Your task to perform on an android device: Open wifi settings Image 0: 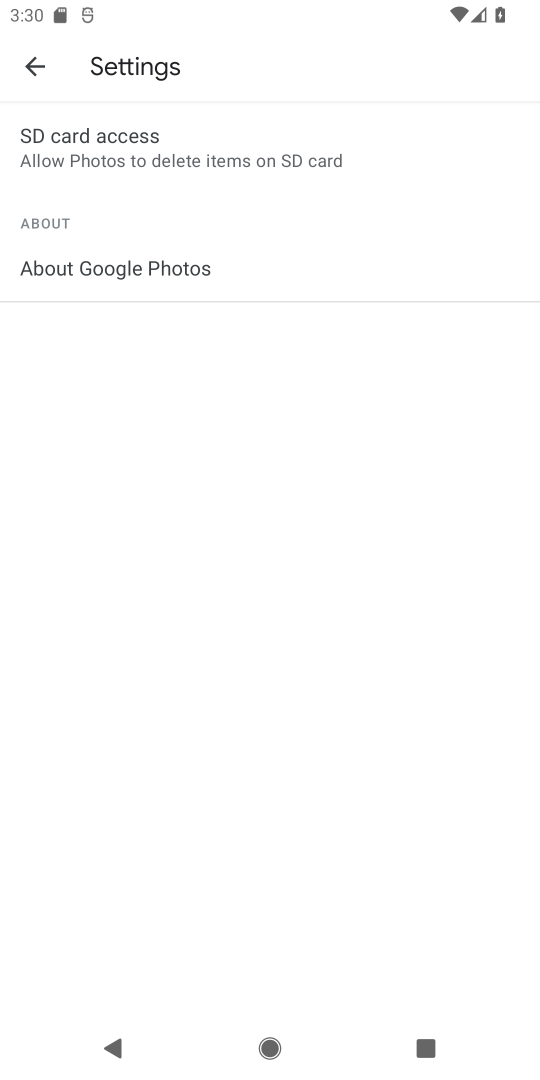
Step 0: press home button
Your task to perform on an android device: Open wifi settings Image 1: 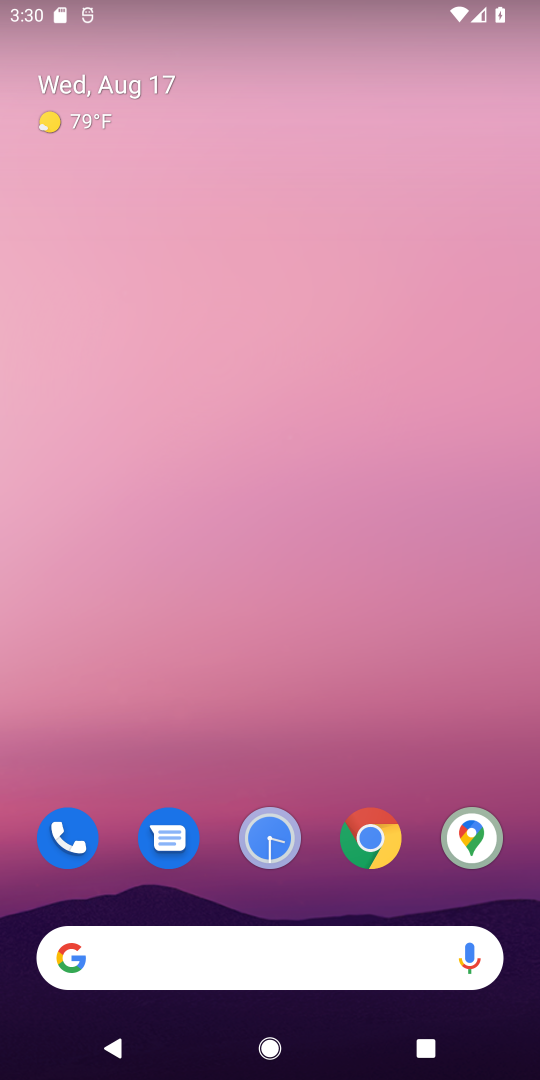
Step 1: drag from (154, 940) to (89, 310)
Your task to perform on an android device: Open wifi settings Image 2: 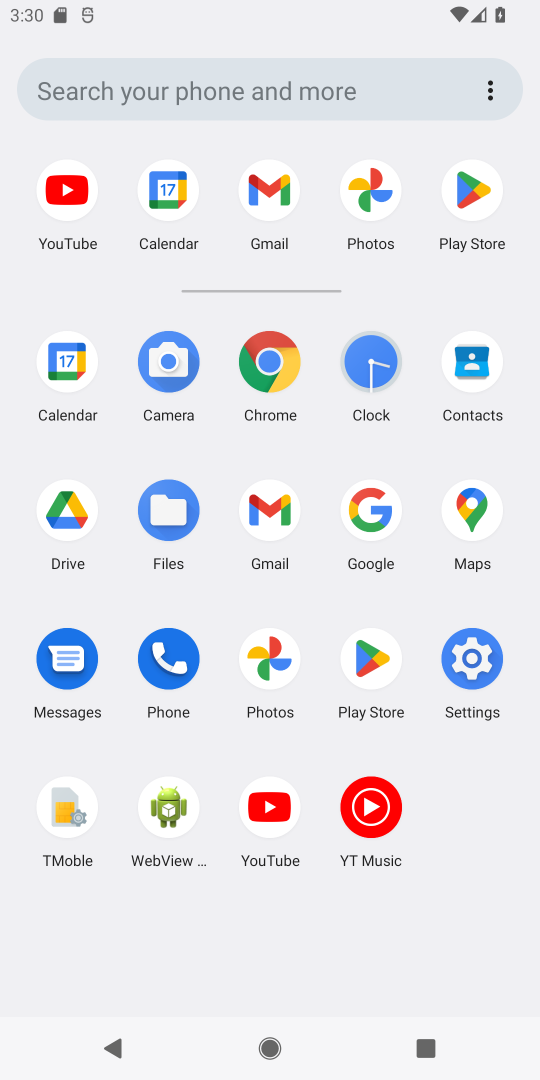
Step 2: click (461, 665)
Your task to perform on an android device: Open wifi settings Image 3: 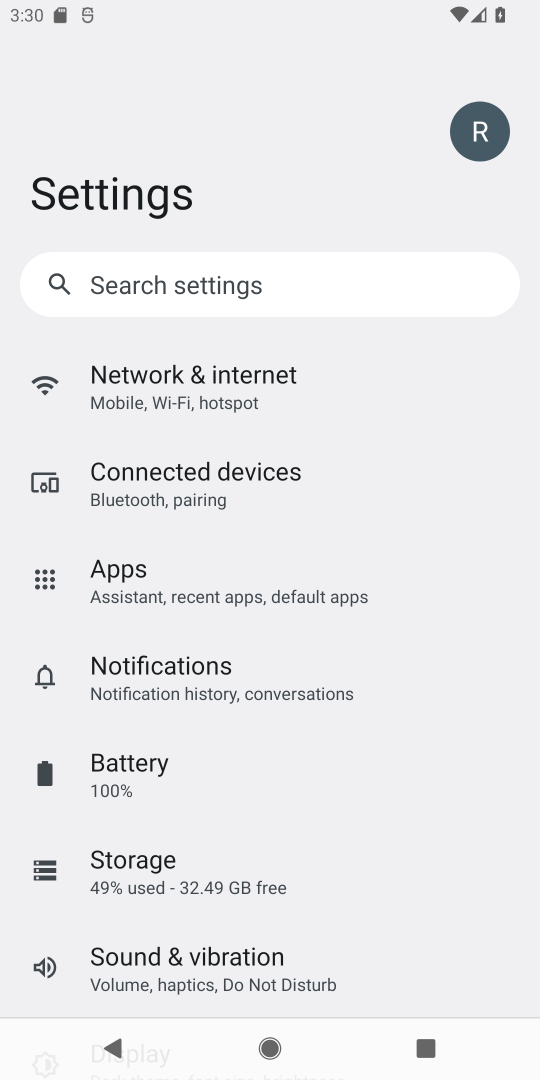
Step 3: click (97, 397)
Your task to perform on an android device: Open wifi settings Image 4: 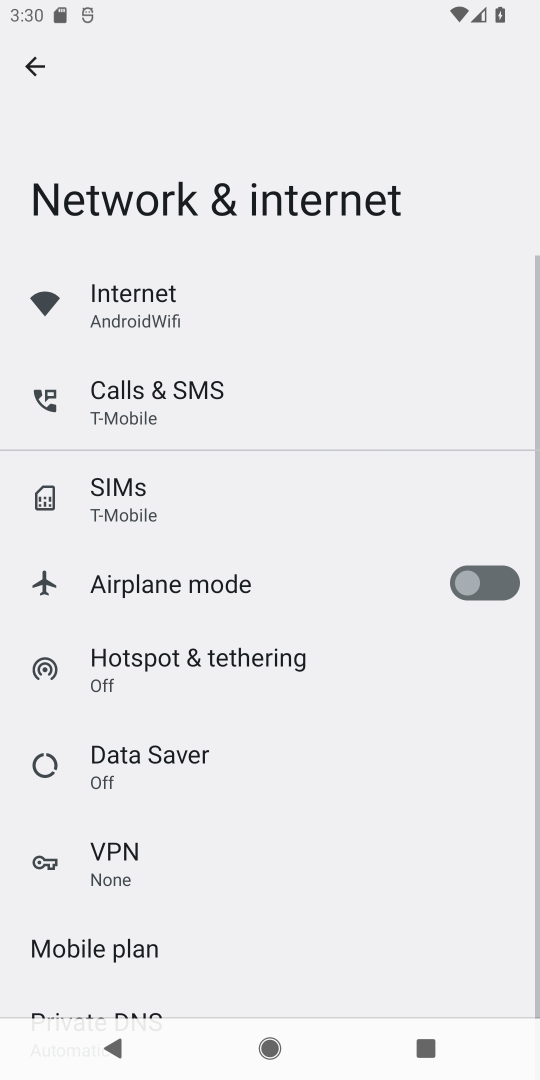
Step 4: click (145, 303)
Your task to perform on an android device: Open wifi settings Image 5: 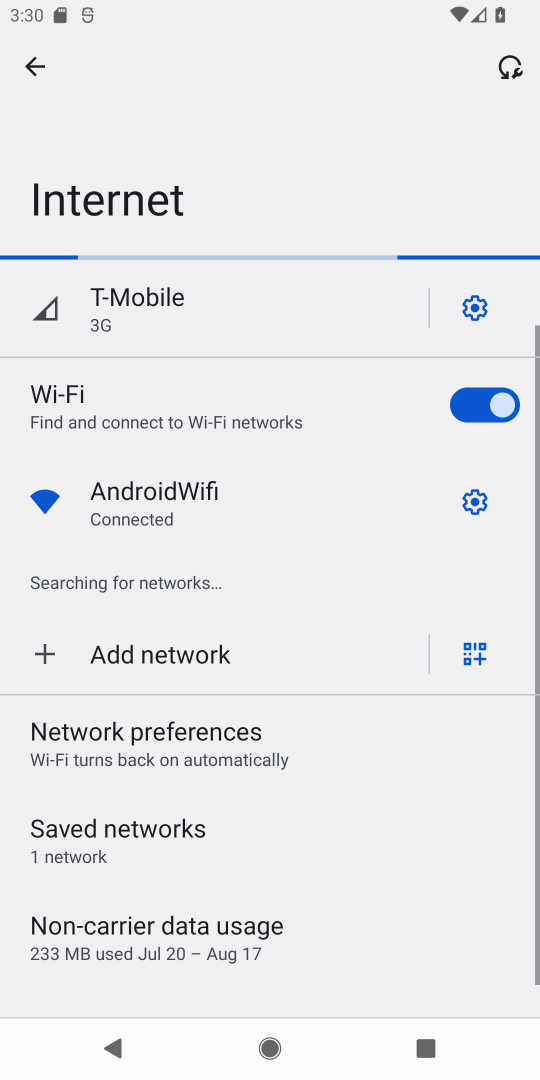
Step 5: click (476, 497)
Your task to perform on an android device: Open wifi settings Image 6: 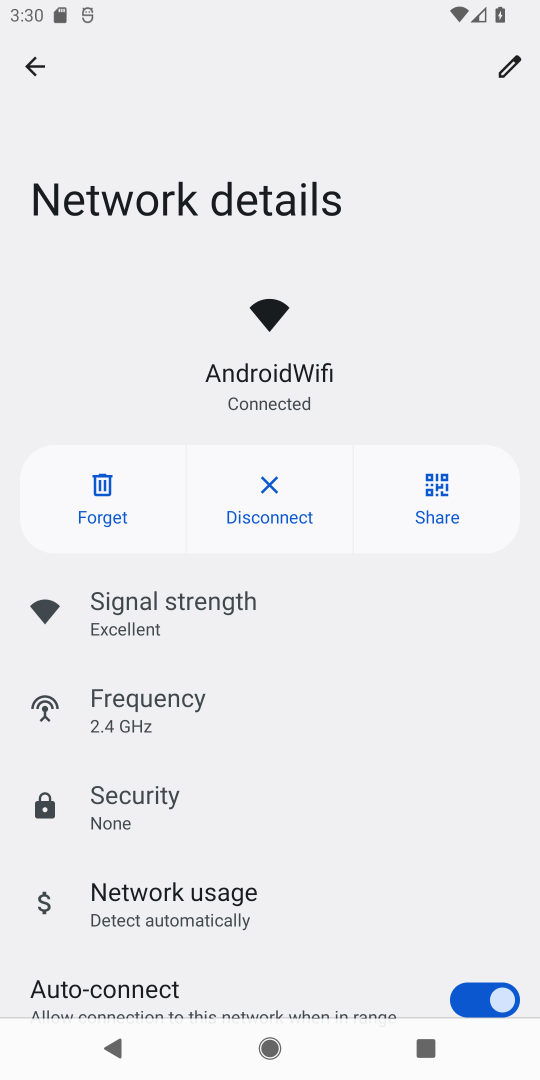
Step 6: task complete